Your task to perform on an android device: Is it going to rain today? Image 0: 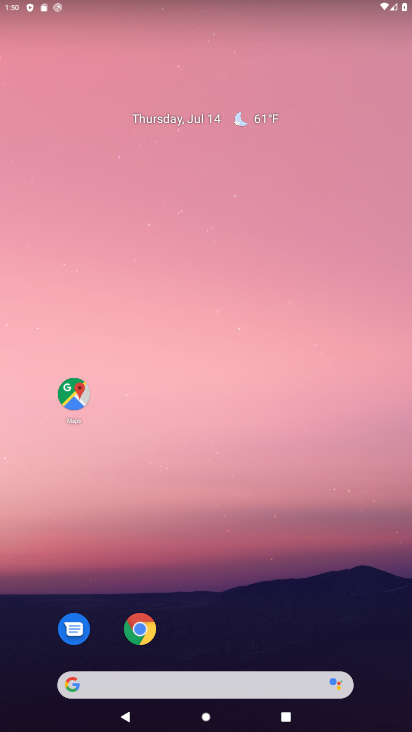
Step 0: click (267, 121)
Your task to perform on an android device: Is it going to rain today? Image 1: 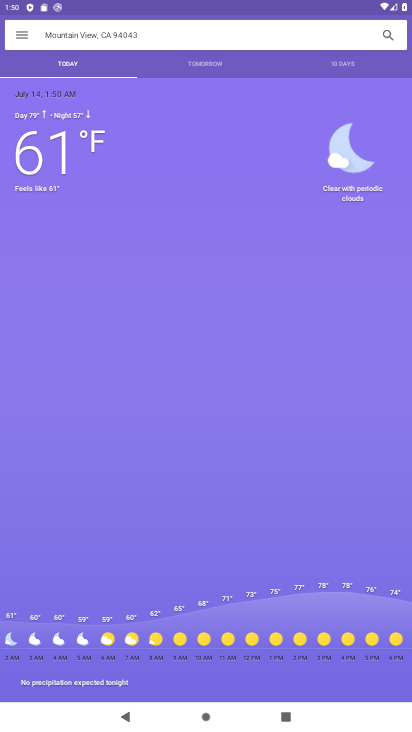
Step 1: task complete